Your task to perform on an android device: change the clock display to digital Image 0: 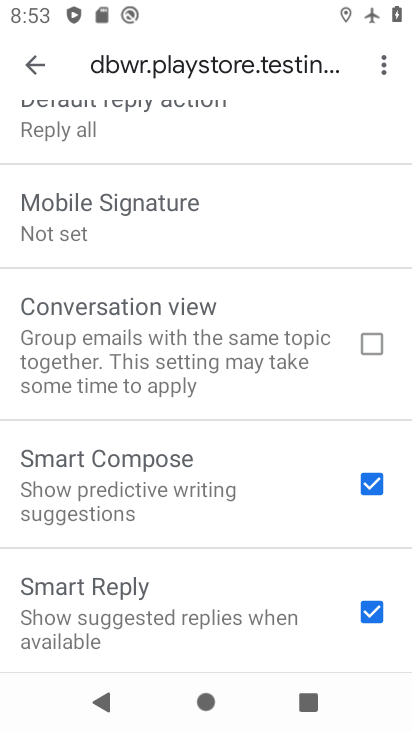
Step 0: press home button
Your task to perform on an android device: change the clock display to digital Image 1: 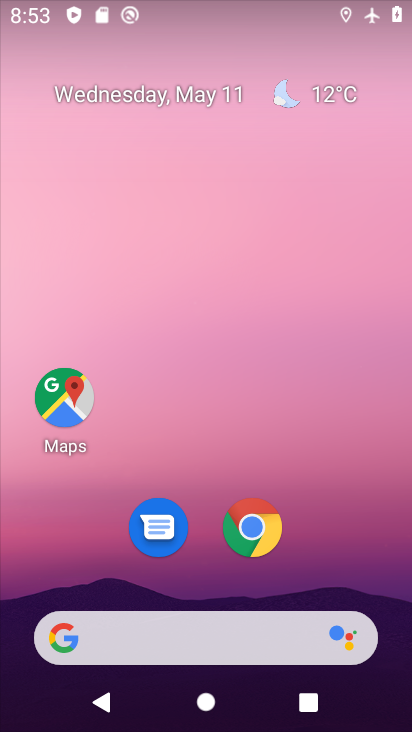
Step 1: drag from (320, 550) to (319, 165)
Your task to perform on an android device: change the clock display to digital Image 2: 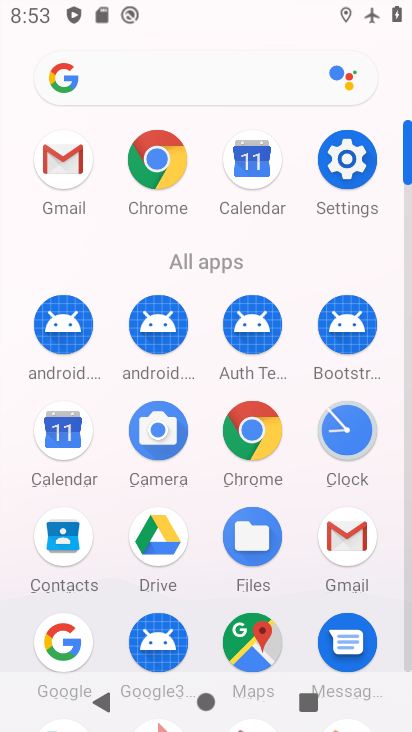
Step 2: click (344, 429)
Your task to perform on an android device: change the clock display to digital Image 3: 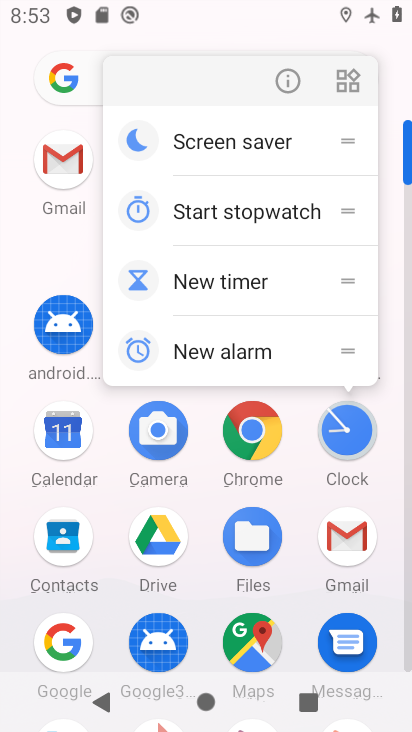
Step 3: click (358, 443)
Your task to perform on an android device: change the clock display to digital Image 4: 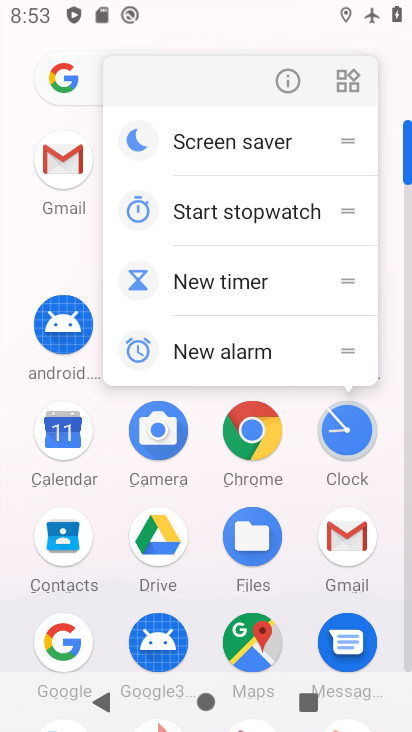
Step 4: click (345, 435)
Your task to perform on an android device: change the clock display to digital Image 5: 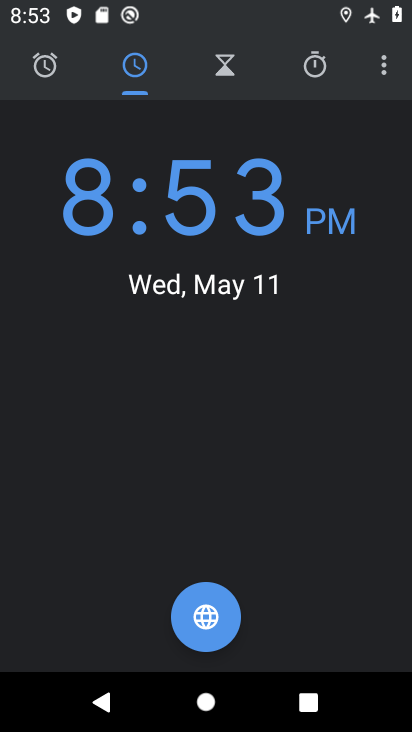
Step 5: click (389, 72)
Your task to perform on an android device: change the clock display to digital Image 6: 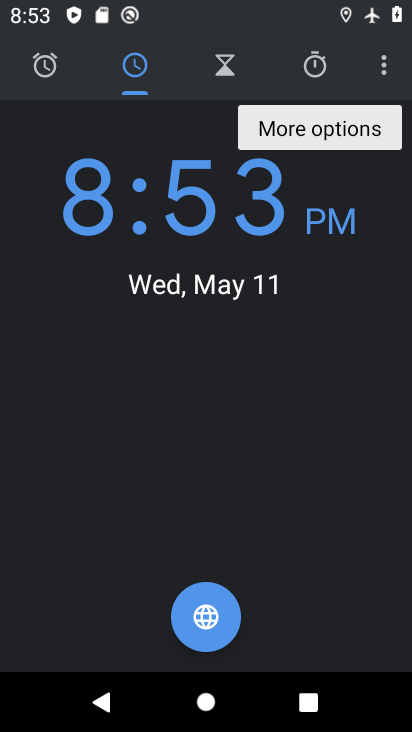
Step 6: click (389, 72)
Your task to perform on an android device: change the clock display to digital Image 7: 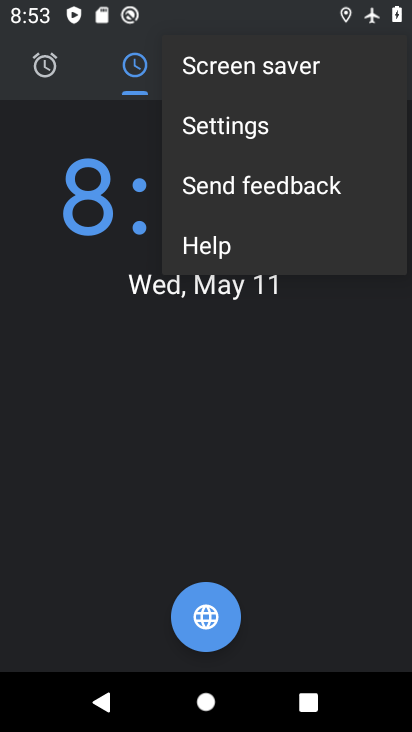
Step 7: click (261, 129)
Your task to perform on an android device: change the clock display to digital Image 8: 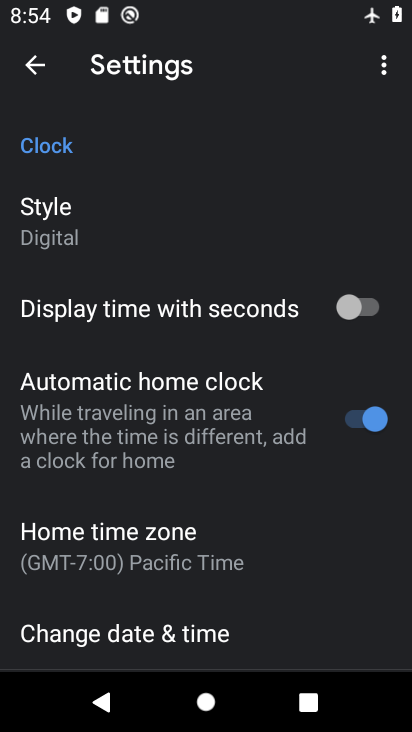
Step 8: click (70, 214)
Your task to perform on an android device: change the clock display to digital Image 9: 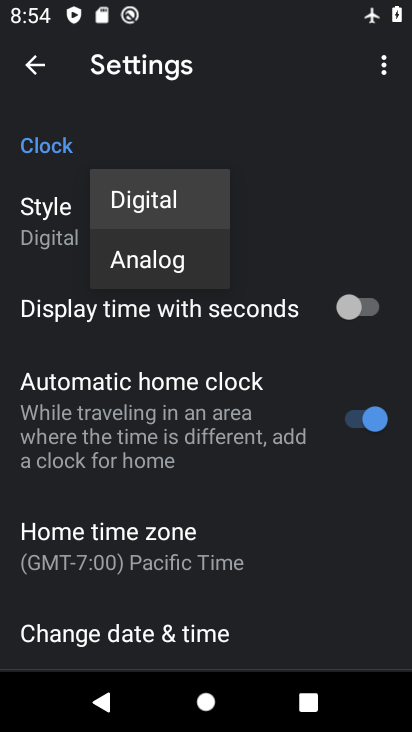
Step 9: task complete